Your task to perform on an android device: empty trash in the gmail app Image 0: 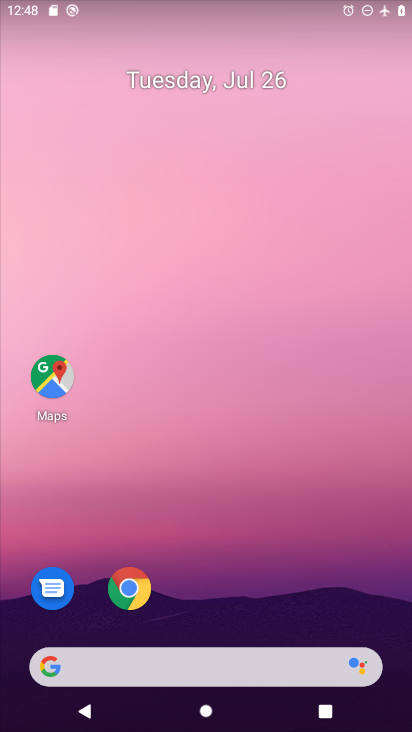
Step 0: drag from (238, 613) to (223, 63)
Your task to perform on an android device: empty trash in the gmail app Image 1: 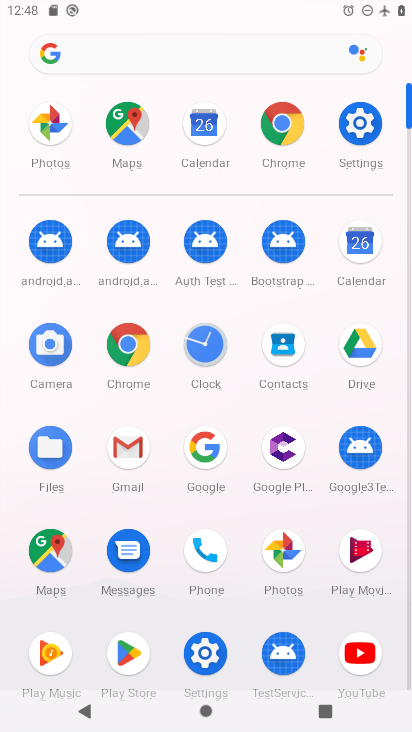
Step 1: click (134, 449)
Your task to perform on an android device: empty trash in the gmail app Image 2: 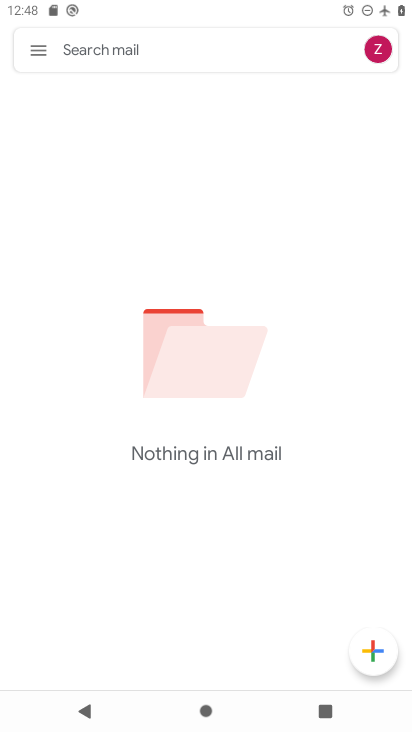
Step 2: click (42, 45)
Your task to perform on an android device: empty trash in the gmail app Image 3: 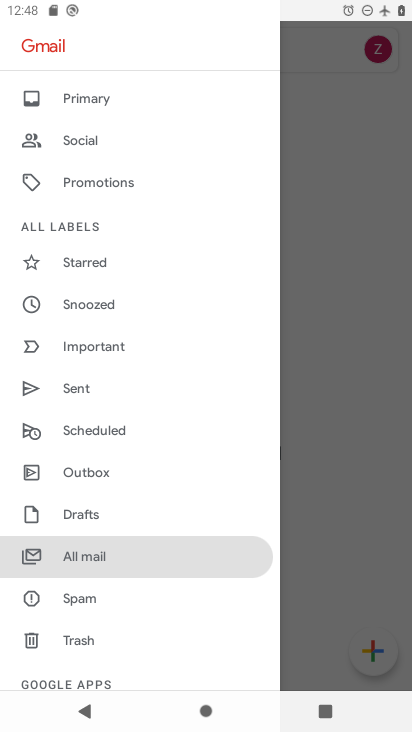
Step 3: click (110, 649)
Your task to perform on an android device: empty trash in the gmail app Image 4: 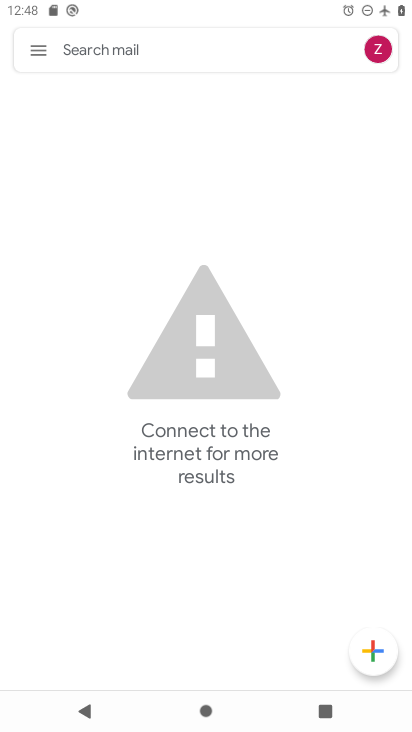
Step 4: task complete